Your task to perform on an android device: Clear all items from cart on amazon. Image 0: 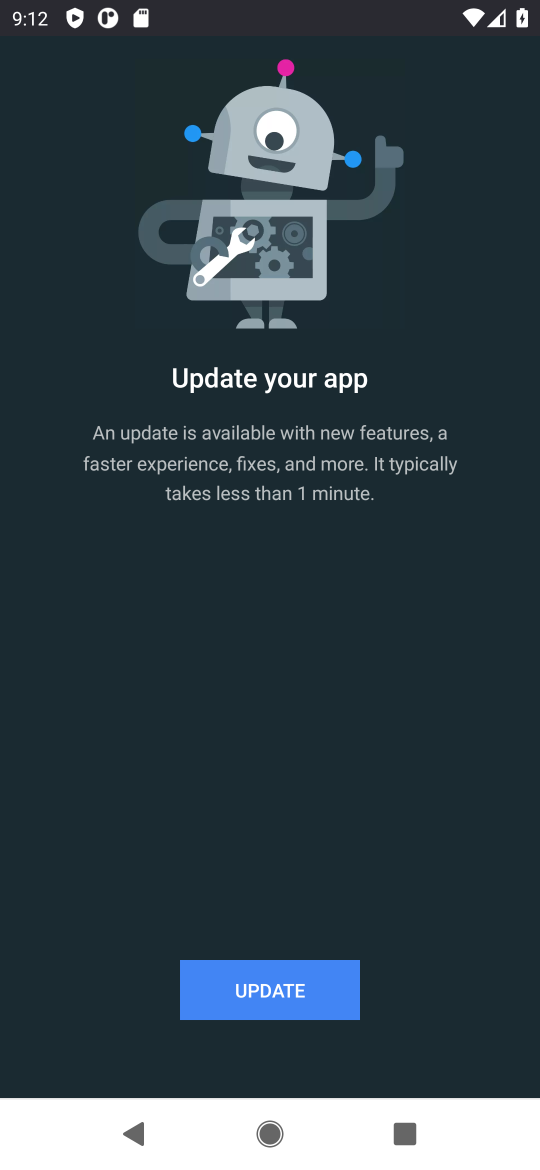
Step 0: press home button
Your task to perform on an android device: Clear all items from cart on amazon. Image 1: 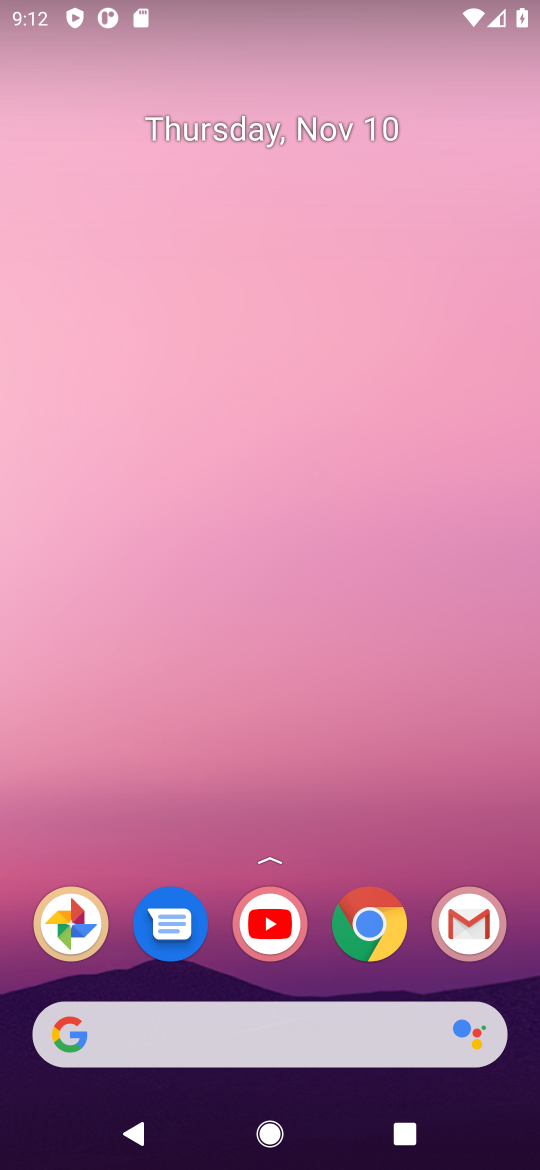
Step 1: click (376, 939)
Your task to perform on an android device: Clear all items from cart on amazon. Image 2: 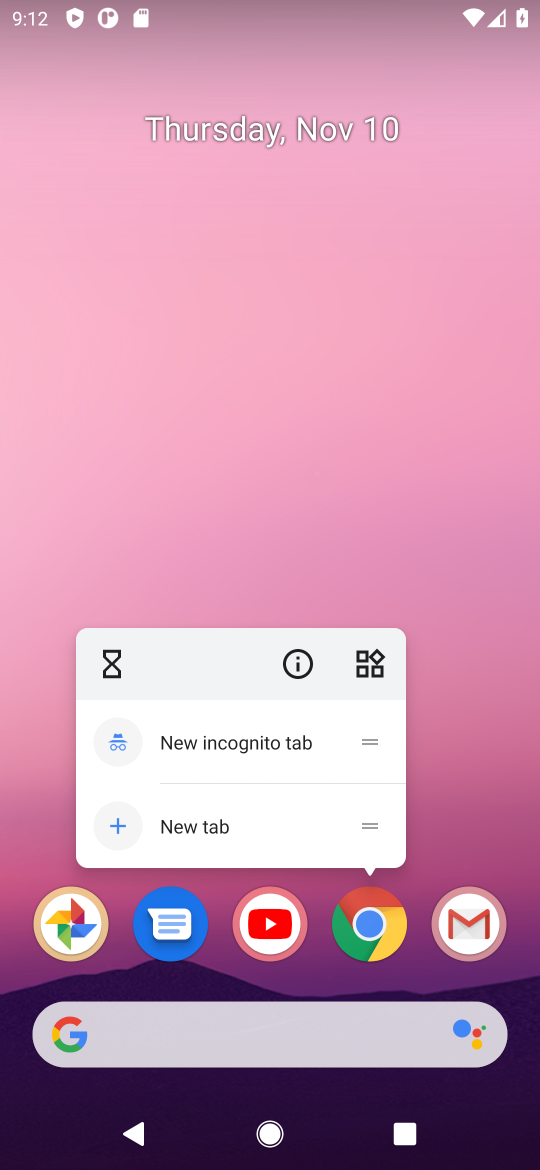
Step 2: click (374, 937)
Your task to perform on an android device: Clear all items from cart on amazon. Image 3: 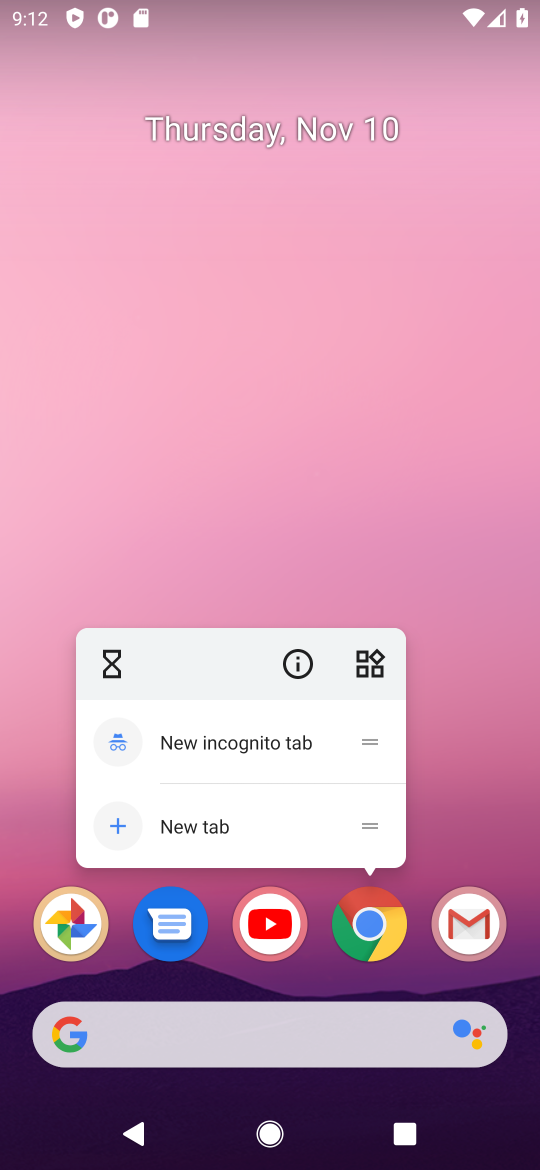
Step 3: click (374, 936)
Your task to perform on an android device: Clear all items from cart on amazon. Image 4: 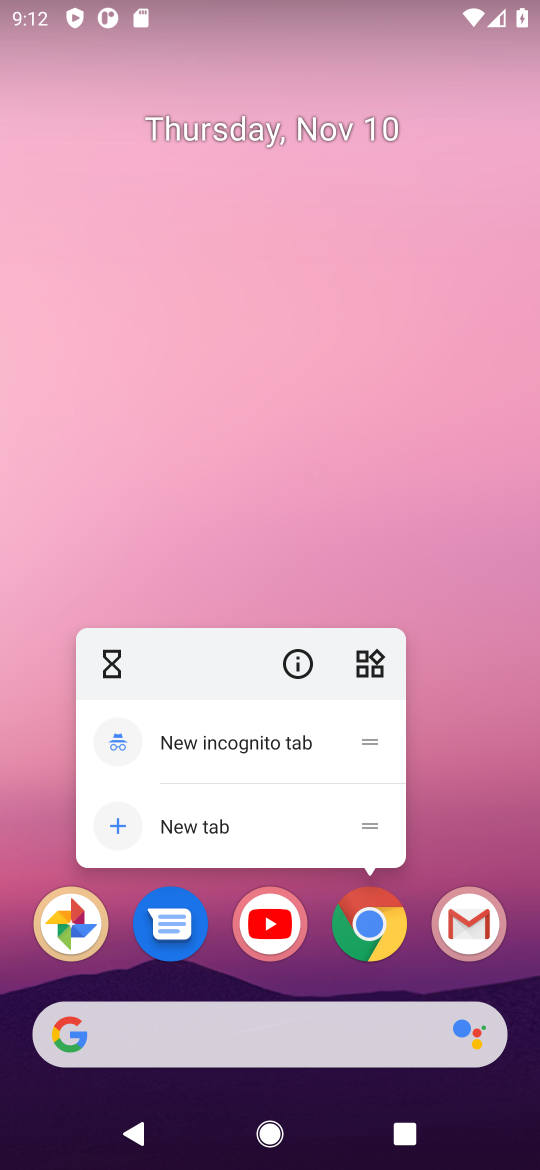
Step 4: click (508, 772)
Your task to perform on an android device: Clear all items from cart on amazon. Image 5: 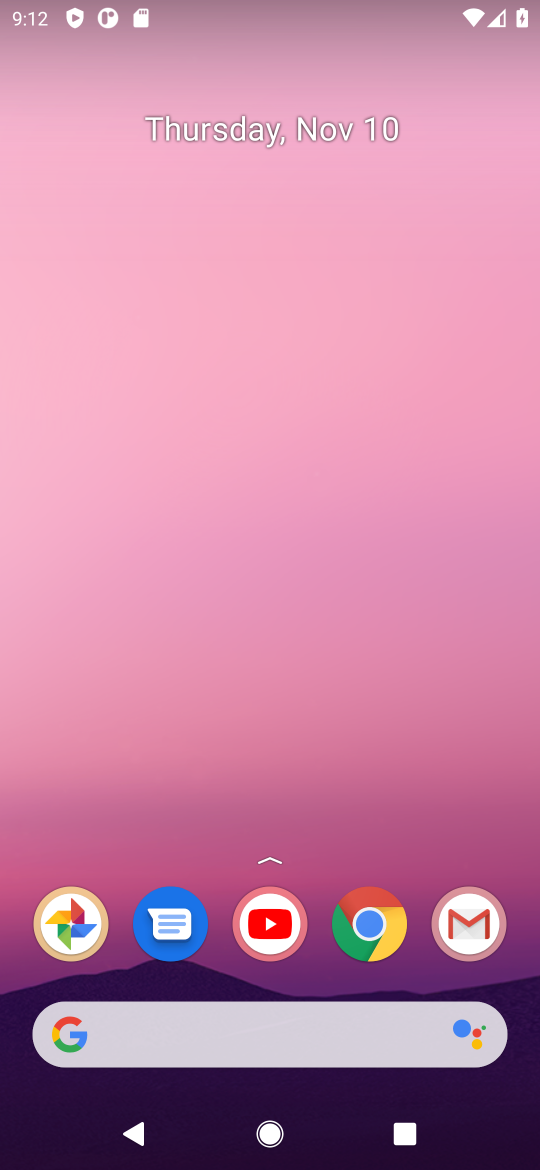
Step 5: click (373, 934)
Your task to perform on an android device: Clear all items from cart on amazon. Image 6: 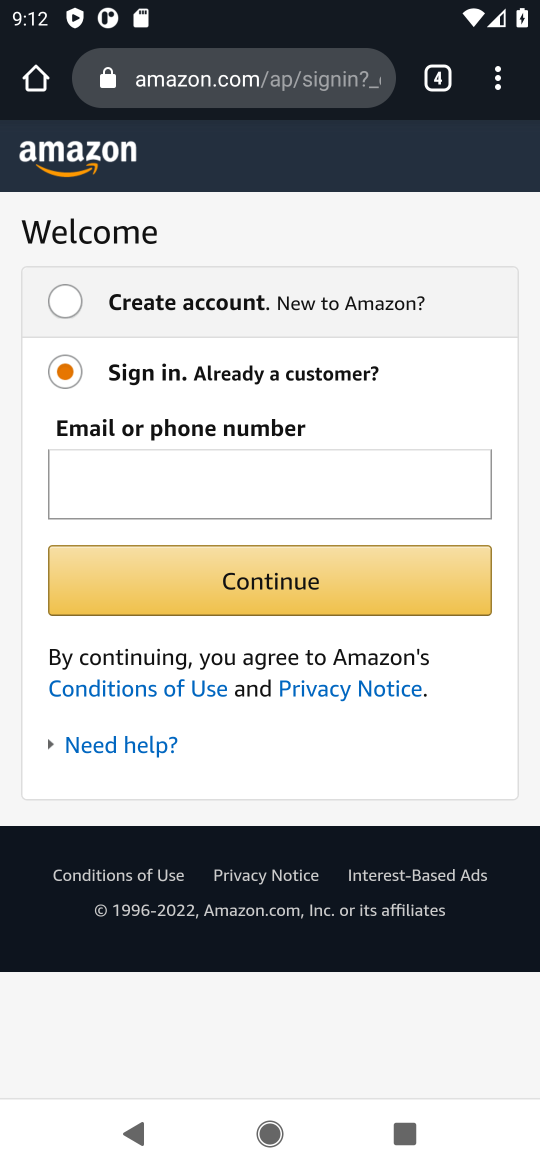
Step 6: press back button
Your task to perform on an android device: Clear all items from cart on amazon. Image 7: 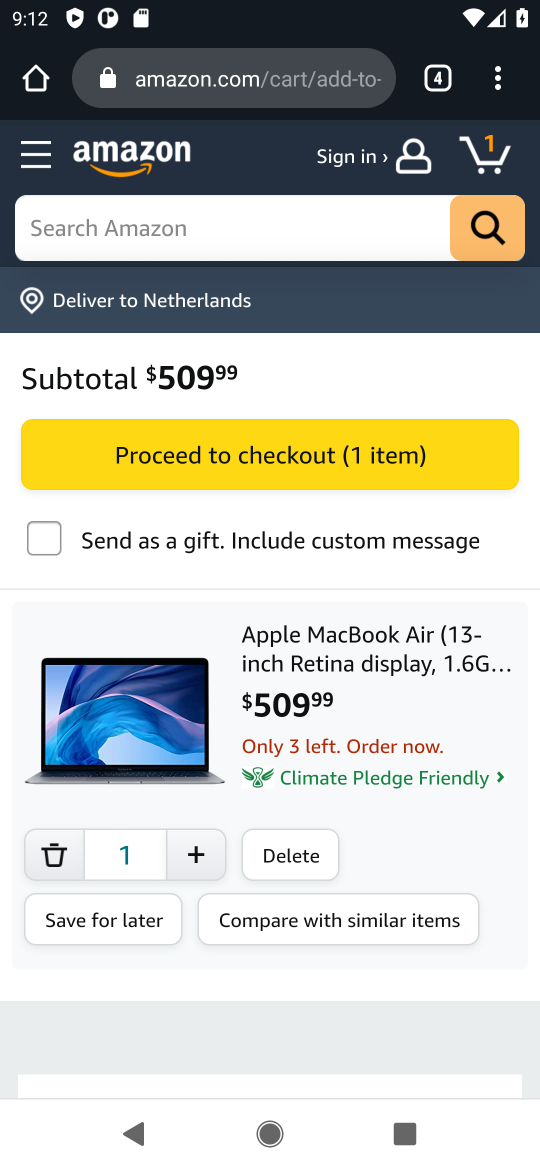
Step 7: click (51, 850)
Your task to perform on an android device: Clear all items from cart on amazon. Image 8: 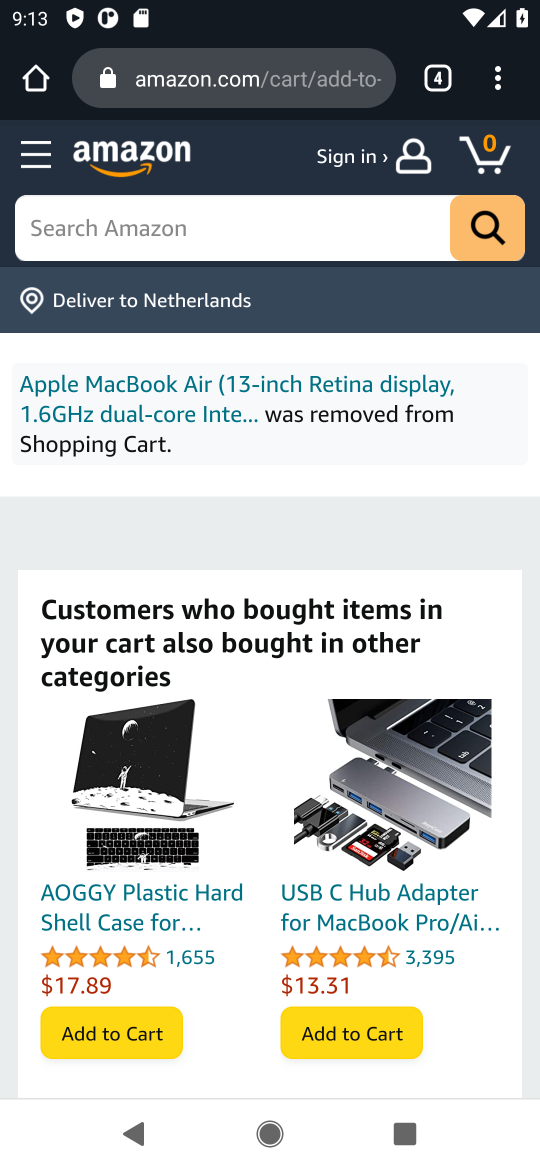
Step 8: task complete